Your task to perform on an android device: Search for good BBQ restaurants Image 0: 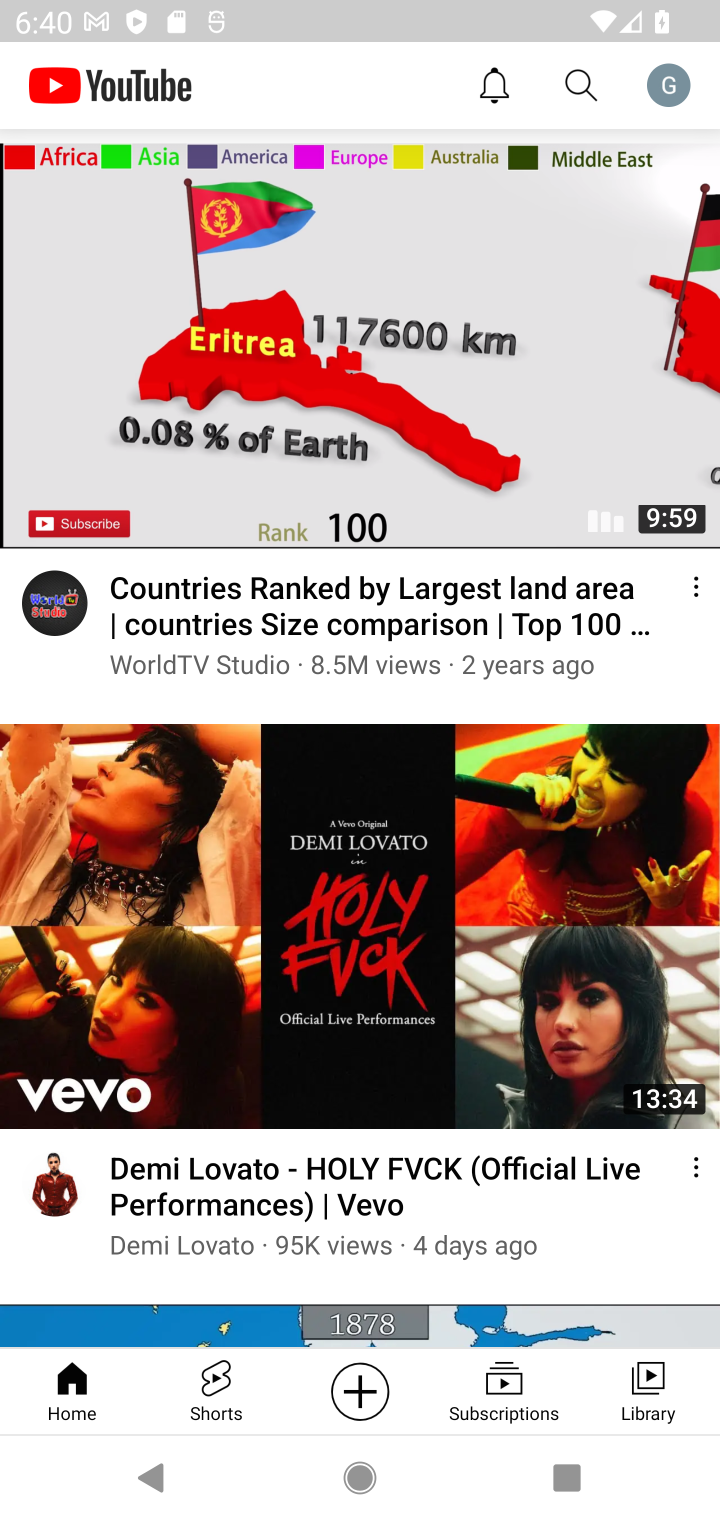
Step 0: press home button
Your task to perform on an android device: Search for good BBQ restaurants Image 1: 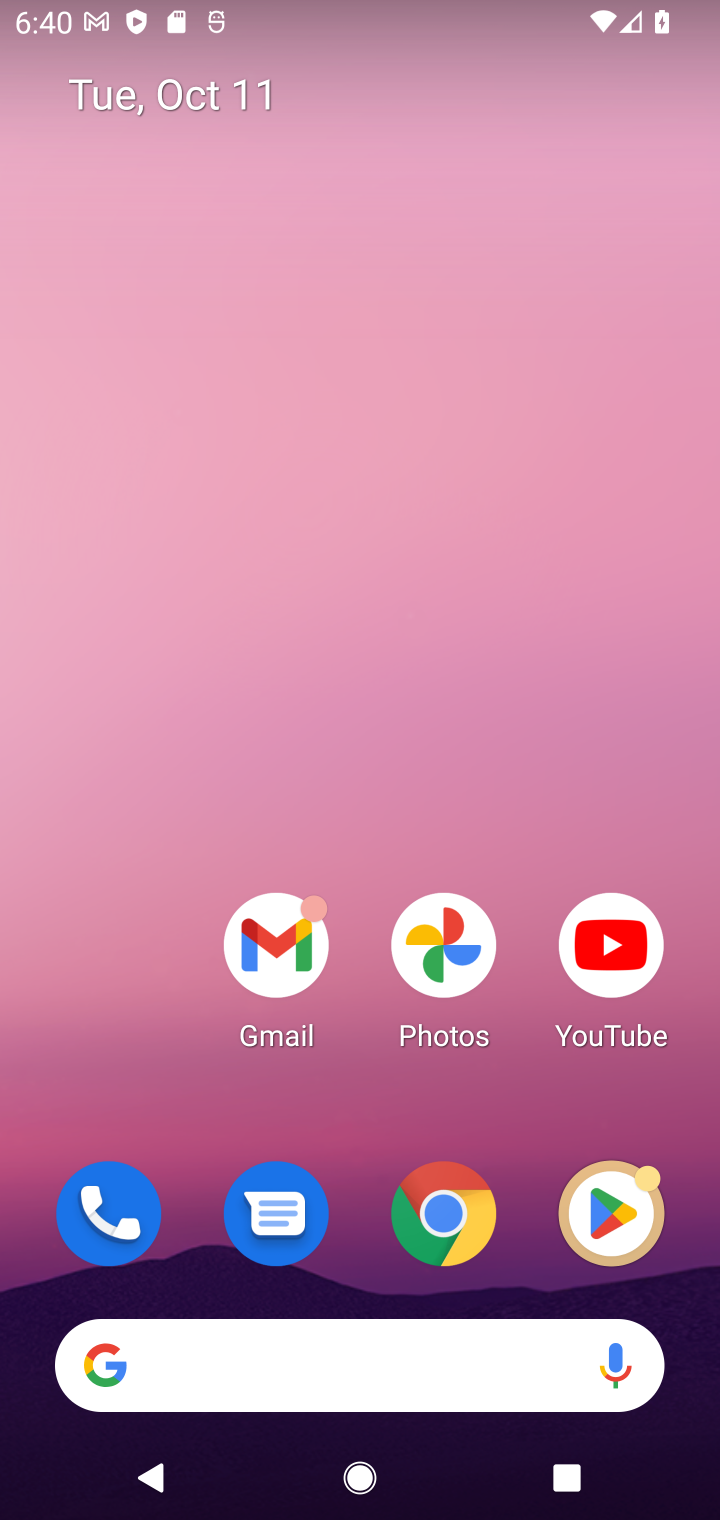
Step 1: drag from (324, 1304) to (331, 268)
Your task to perform on an android device: Search for good BBQ restaurants Image 2: 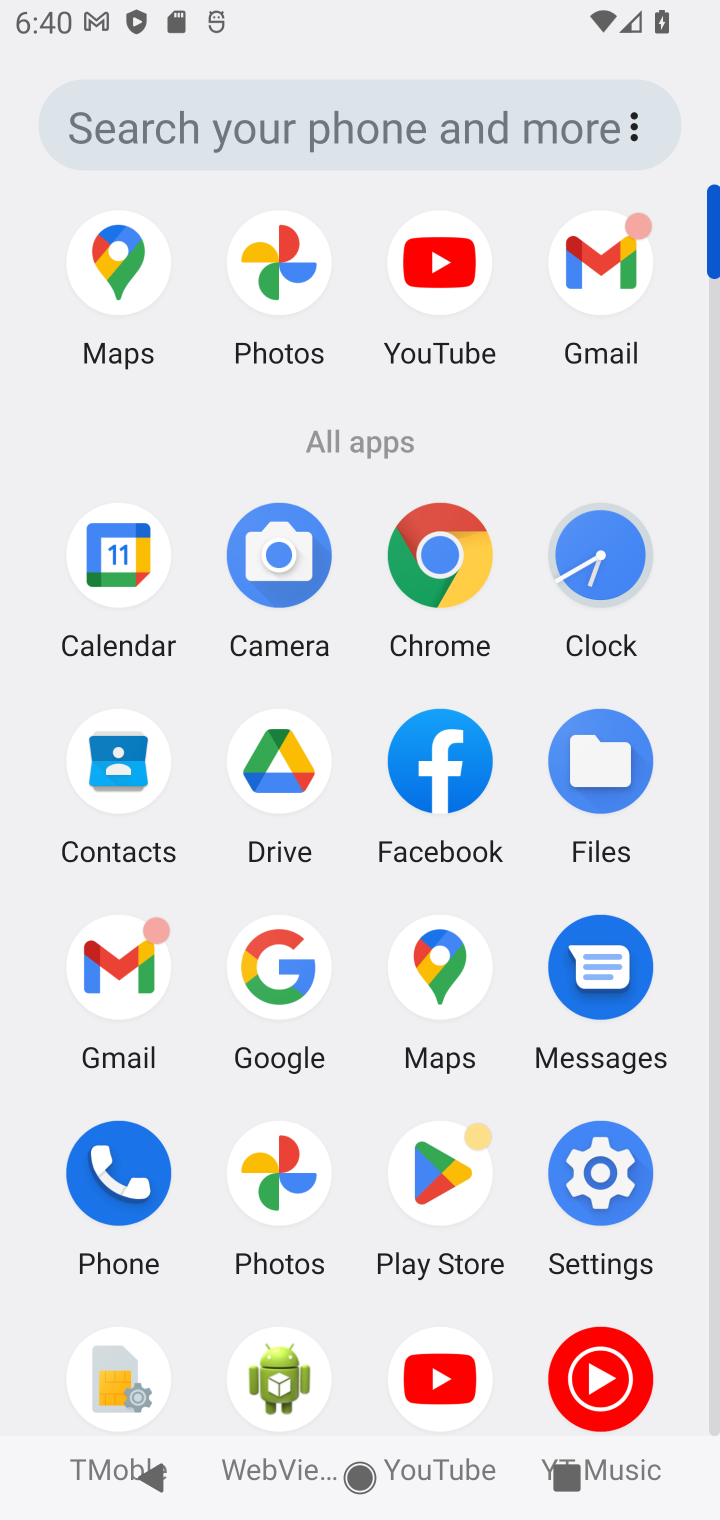
Step 2: click (267, 952)
Your task to perform on an android device: Search for good BBQ restaurants Image 3: 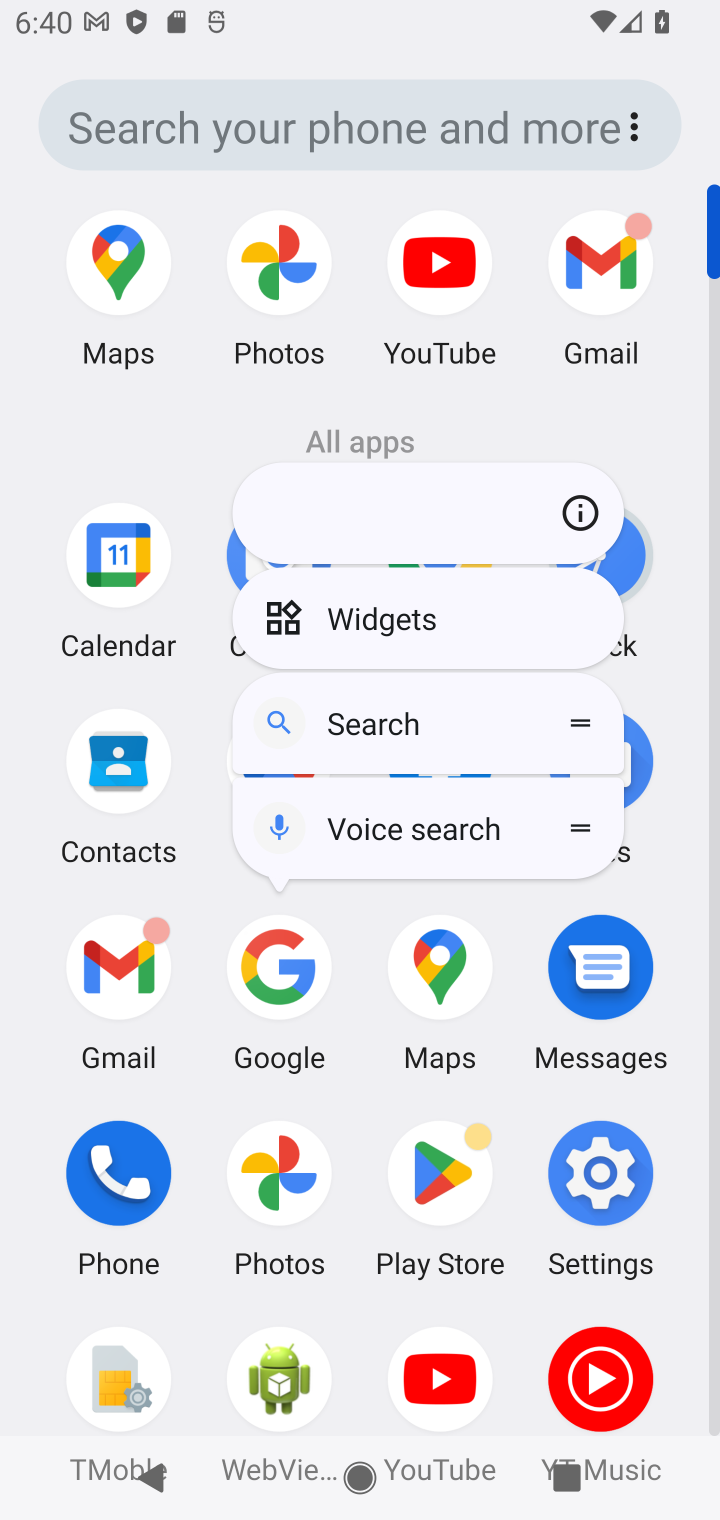
Step 3: click (256, 965)
Your task to perform on an android device: Search for good BBQ restaurants Image 4: 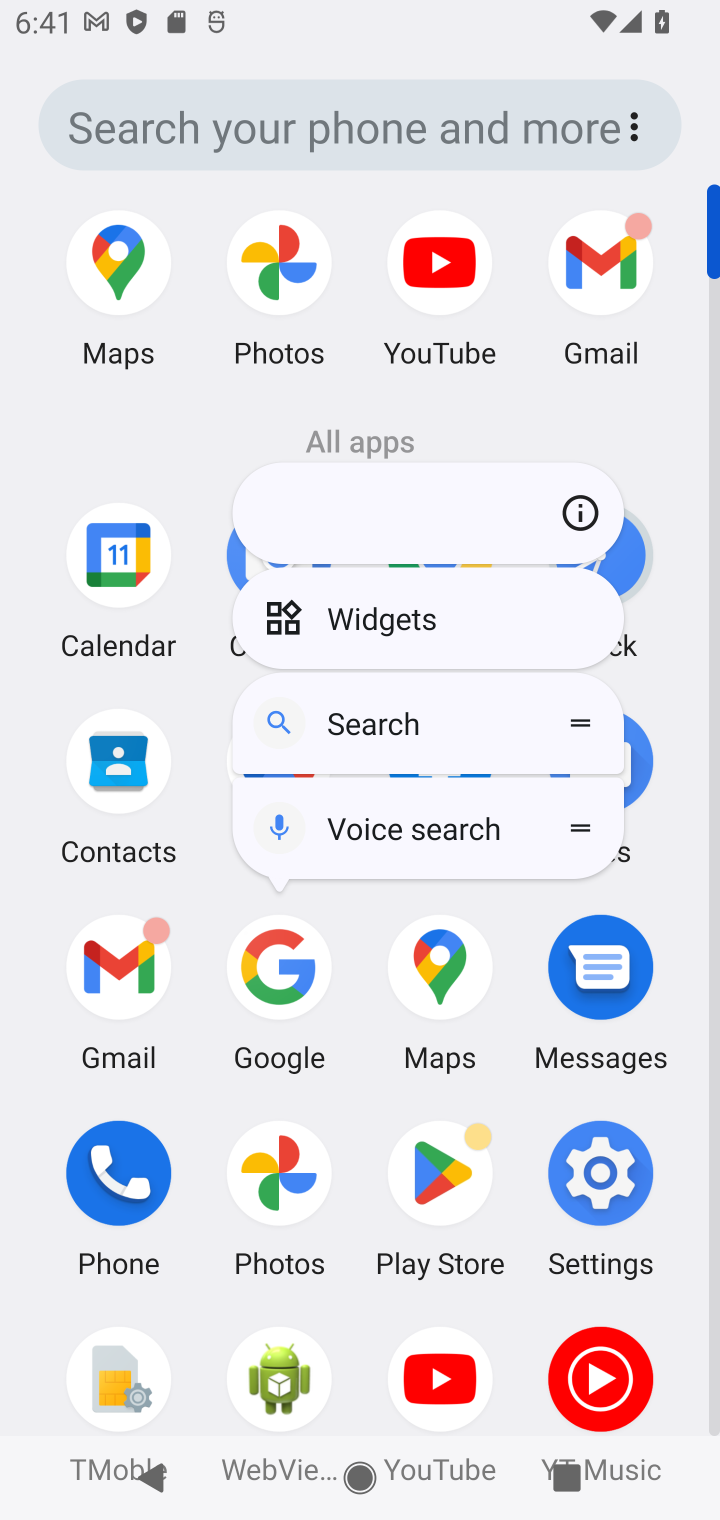
Step 4: click (256, 969)
Your task to perform on an android device: Search for good BBQ restaurants Image 5: 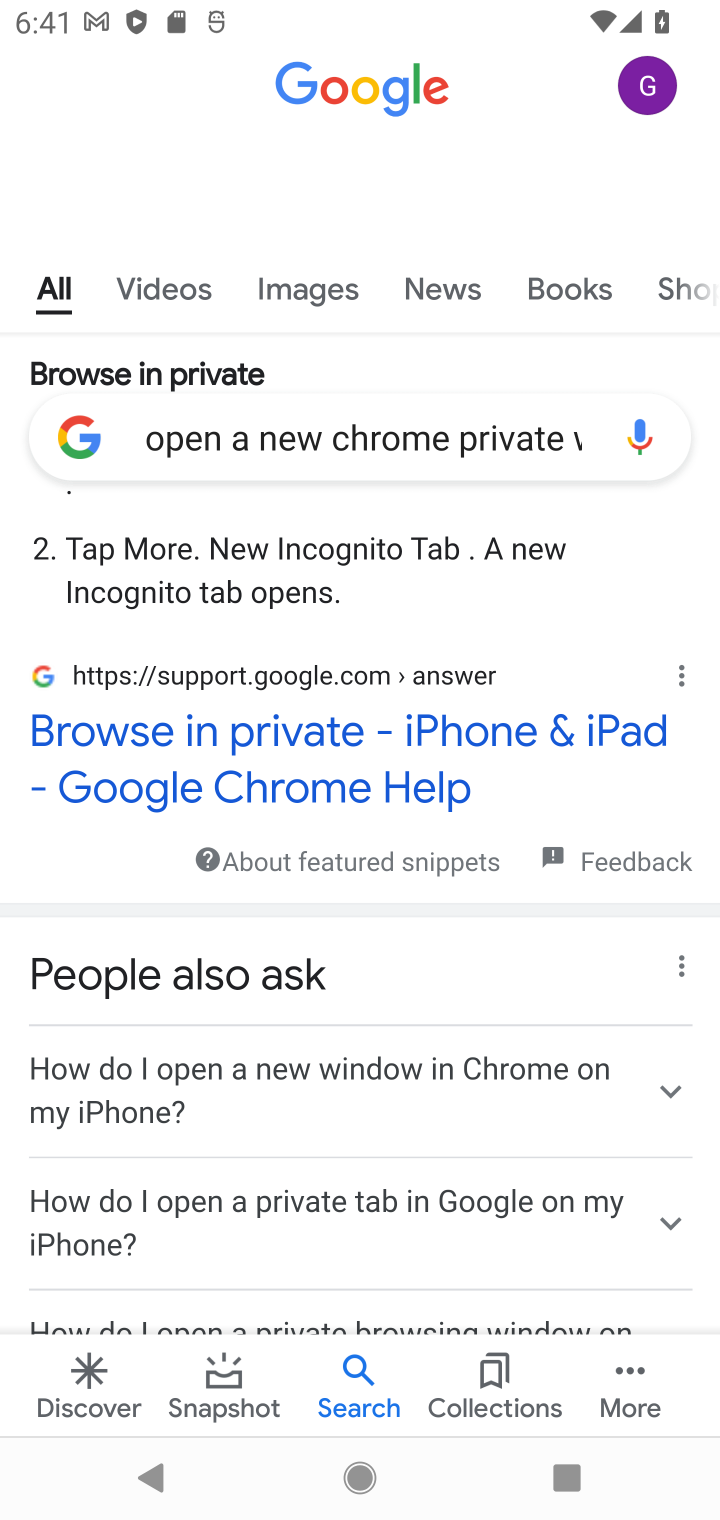
Step 5: task complete